Your task to perform on an android device: find photos in the google photos app Image 0: 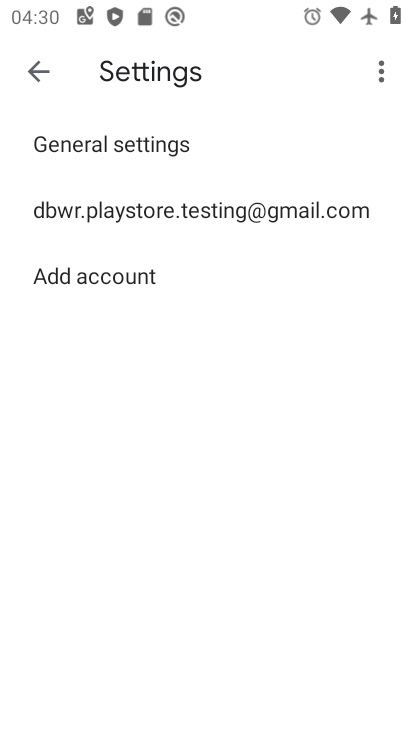
Step 0: press home button
Your task to perform on an android device: find photos in the google photos app Image 1: 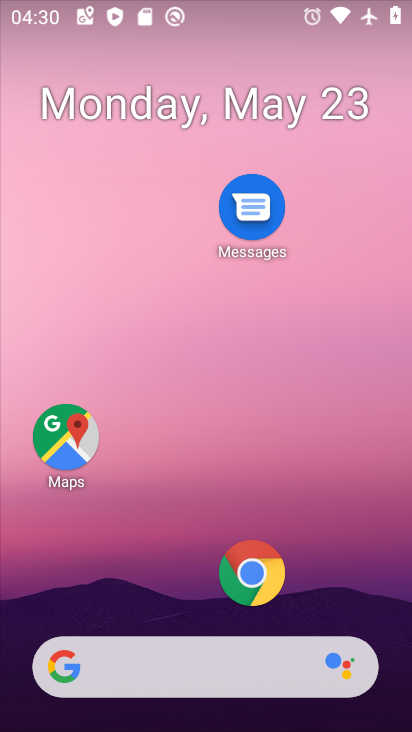
Step 1: drag from (356, 625) to (327, 116)
Your task to perform on an android device: find photos in the google photos app Image 2: 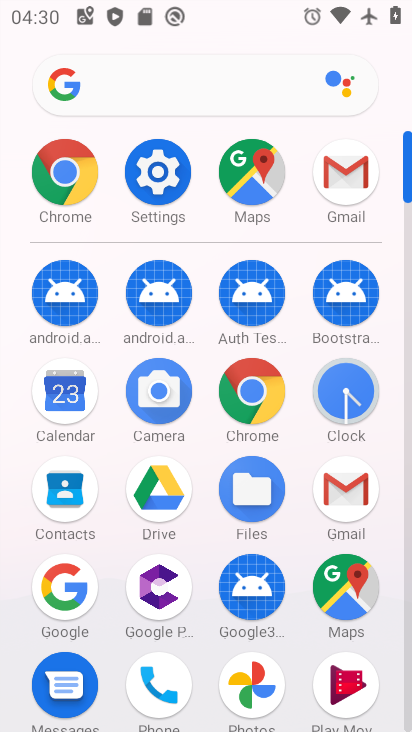
Step 2: click (266, 677)
Your task to perform on an android device: find photos in the google photos app Image 3: 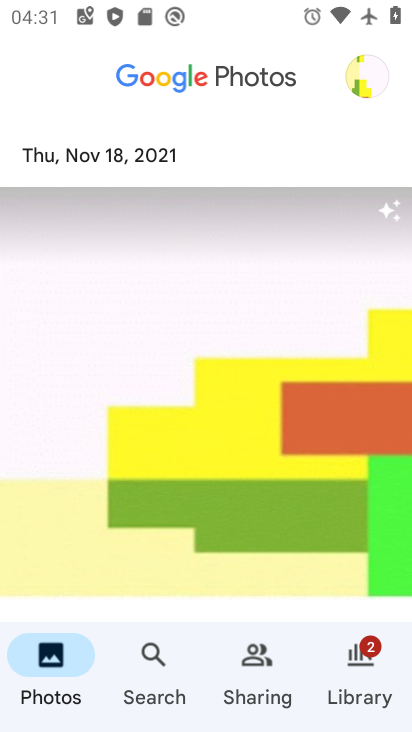
Step 3: press back button
Your task to perform on an android device: find photos in the google photos app Image 4: 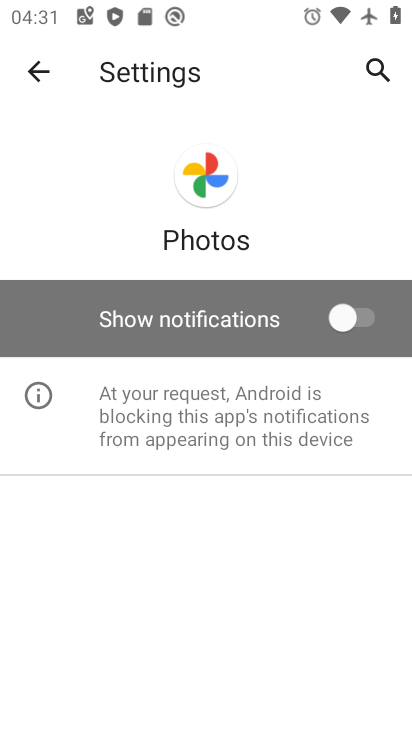
Step 4: press back button
Your task to perform on an android device: find photos in the google photos app Image 5: 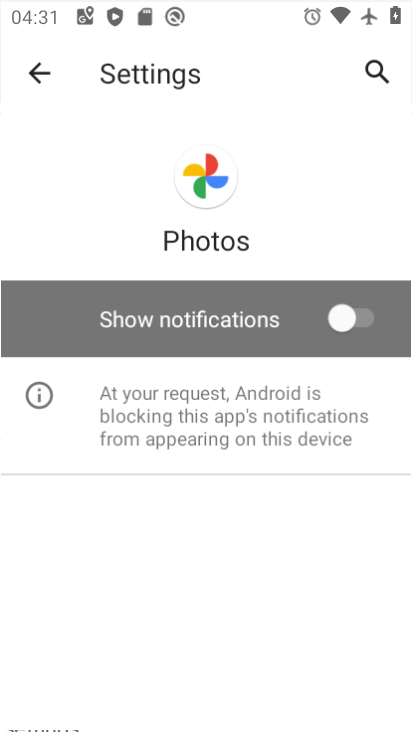
Step 5: press back button
Your task to perform on an android device: find photos in the google photos app Image 6: 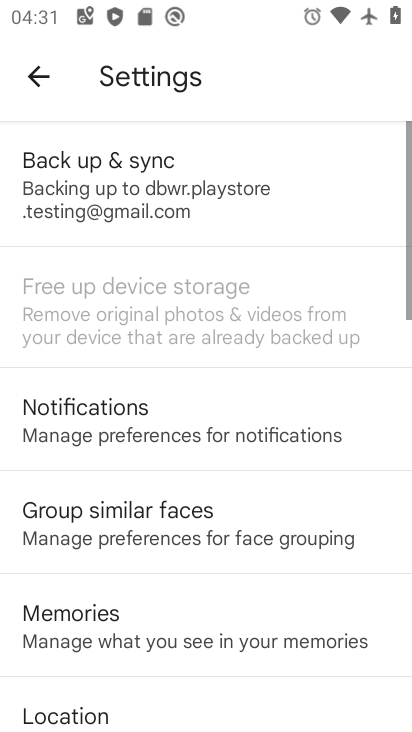
Step 6: press back button
Your task to perform on an android device: find photos in the google photos app Image 7: 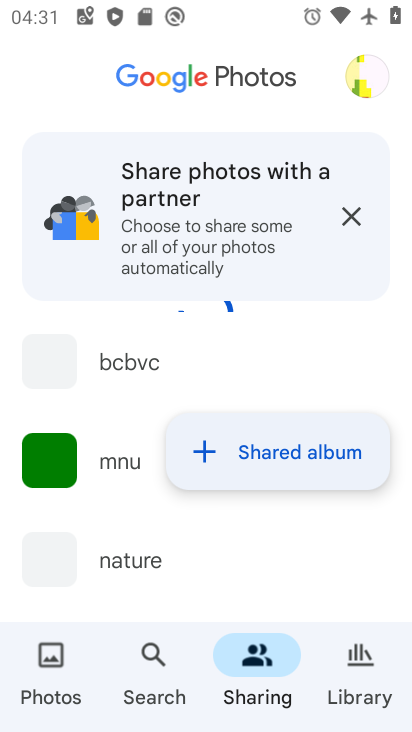
Step 7: press back button
Your task to perform on an android device: find photos in the google photos app Image 8: 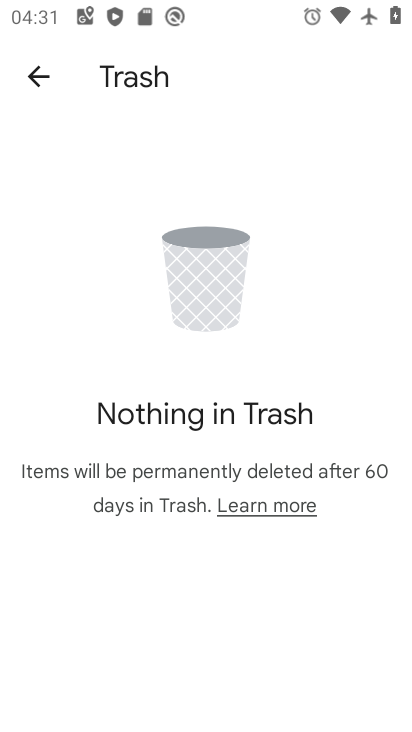
Step 8: press back button
Your task to perform on an android device: find photos in the google photos app Image 9: 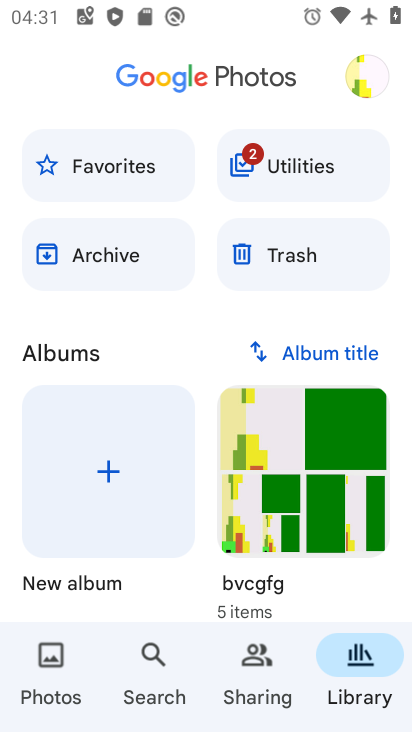
Step 9: press back button
Your task to perform on an android device: find photos in the google photos app Image 10: 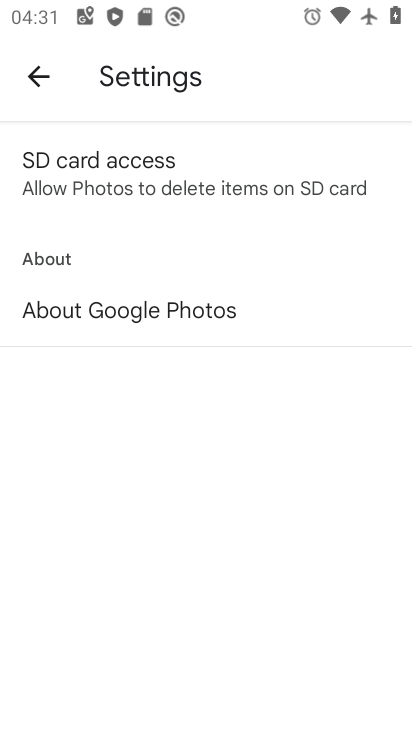
Step 10: press back button
Your task to perform on an android device: find photos in the google photos app Image 11: 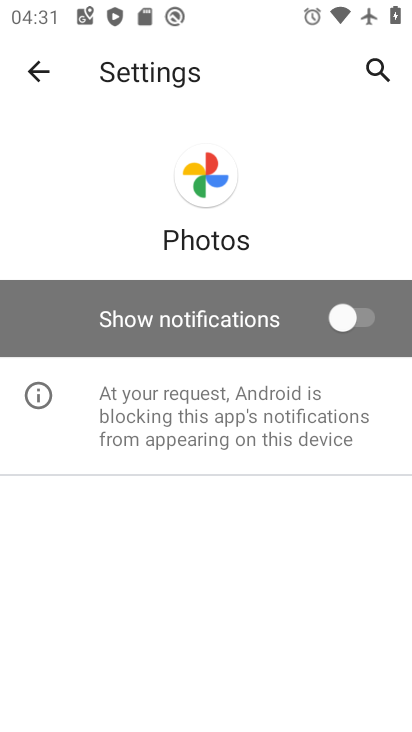
Step 11: press back button
Your task to perform on an android device: find photos in the google photos app Image 12: 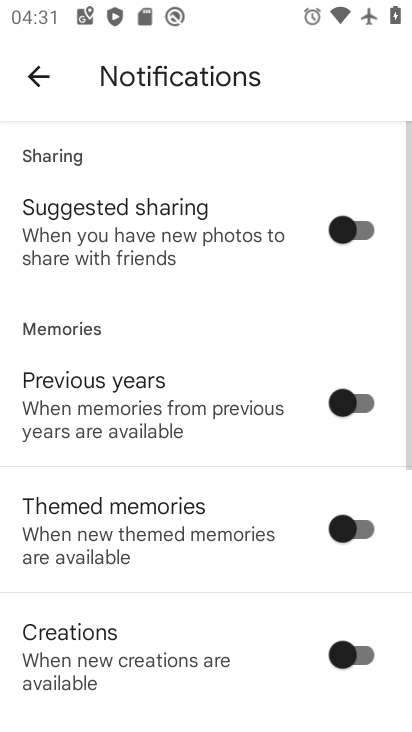
Step 12: press back button
Your task to perform on an android device: find photos in the google photos app Image 13: 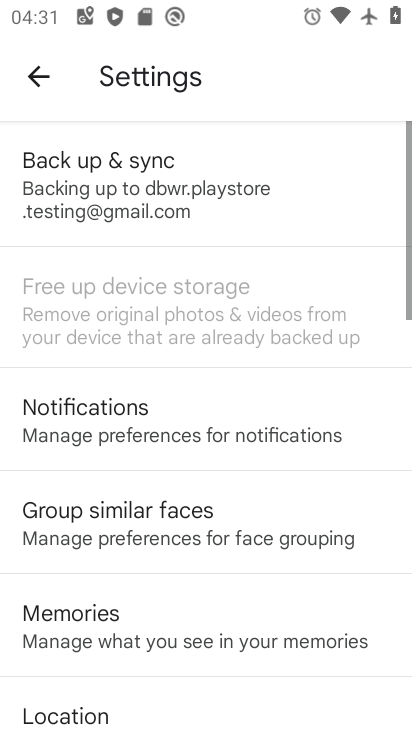
Step 13: press back button
Your task to perform on an android device: find photos in the google photos app Image 14: 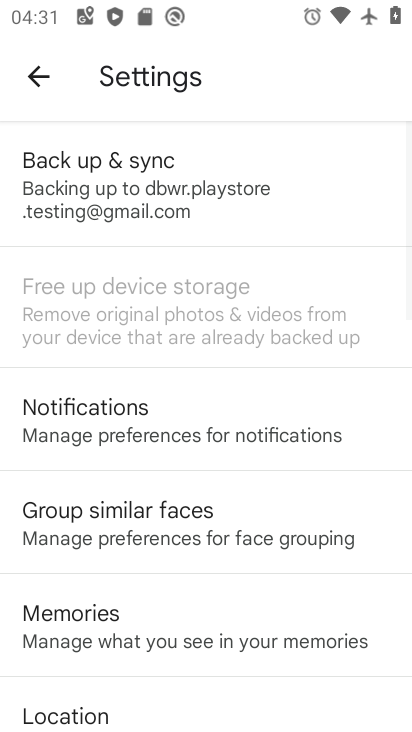
Step 14: press back button
Your task to perform on an android device: find photos in the google photos app Image 15: 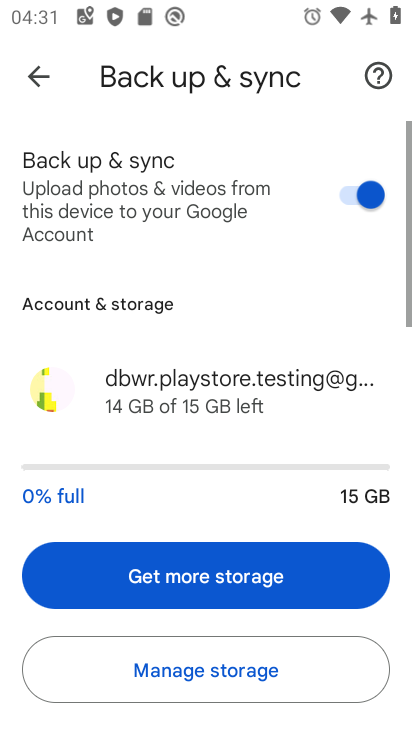
Step 15: press back button
Your task to perform on an android device: find photos in the google photos app Image 16: 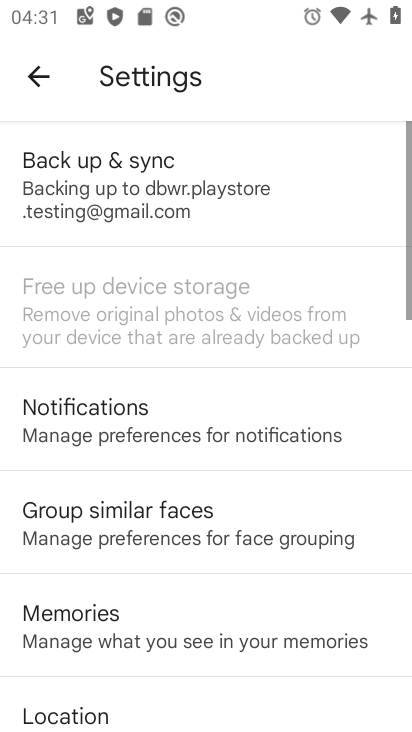
Step 16: press back button
Your task to perform on an android device: find photos in the google photos app Image 17: 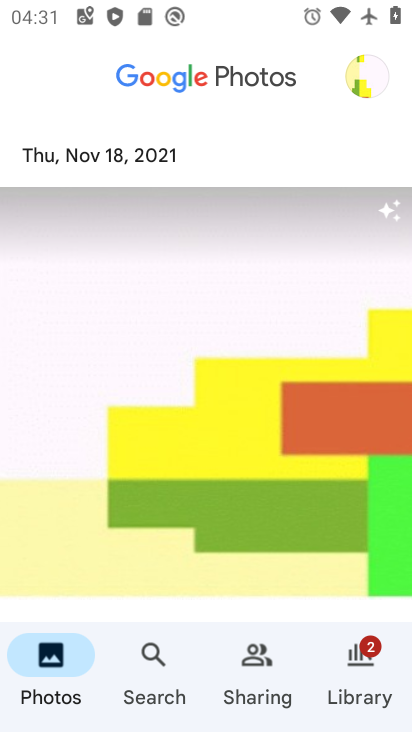
Step 17: press back button
Your task to perform on an android device: find photos in the google photos app Image 18: 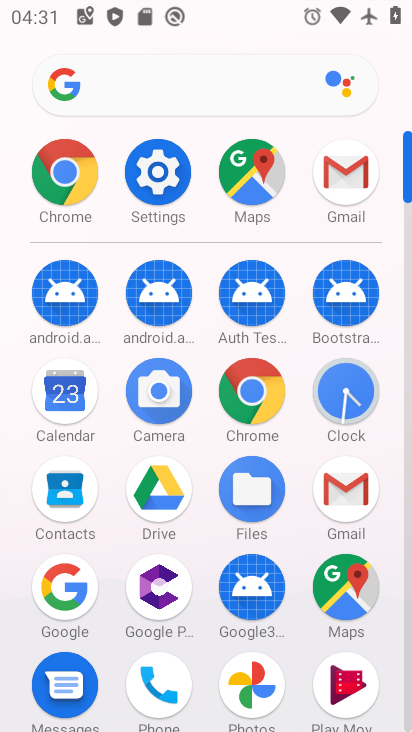
Step 18: click (263, 681)
Your task to perform on an android device: find photos in the google photos app Image 19: 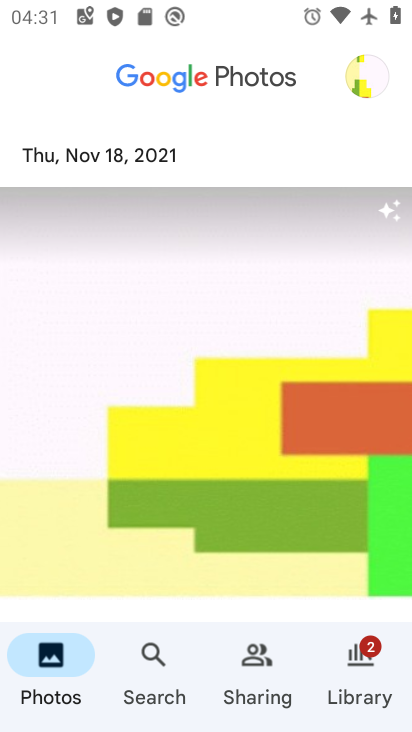
Step 19: task complete